Your task to perform on an android device: empty trash in the gmail app Image 0: 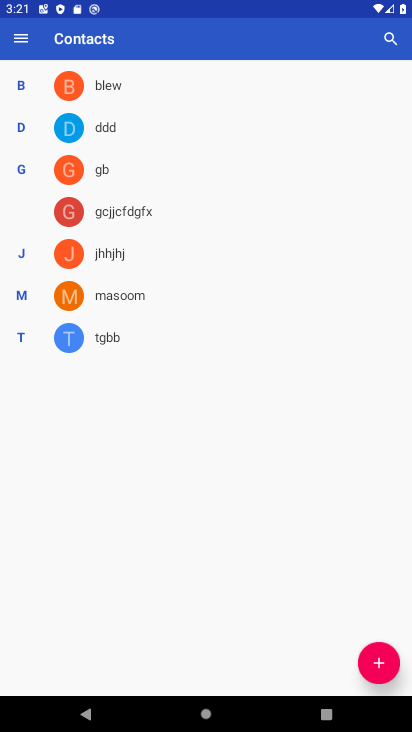
Step 0: press home button
Your task to perform on an android device: empty trash in the gmail app Image 1: 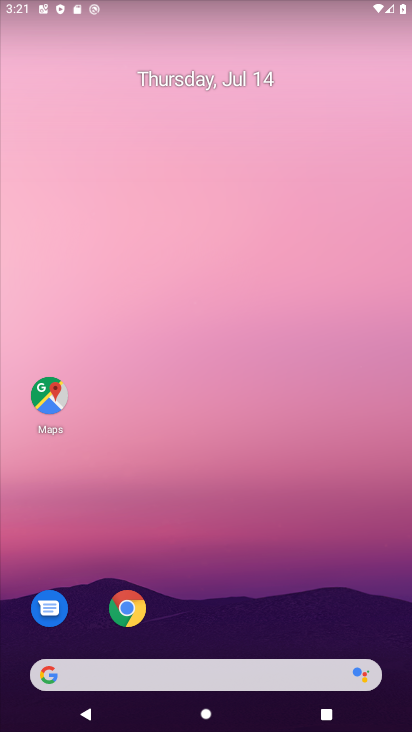
Step 1: drag from (37, 542) to (248, 69)
Your task to perform on an android device: empty trash in the gmail app Image 2: 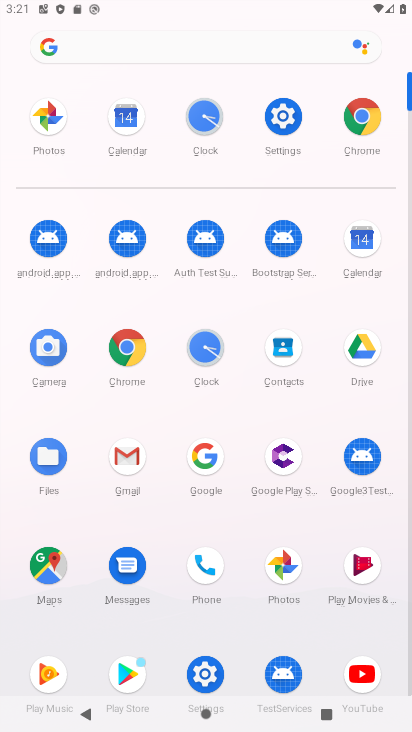
Step 2: click (126, 465)
Your task to perform on an android device: empty trash in the gmail app Image 3: 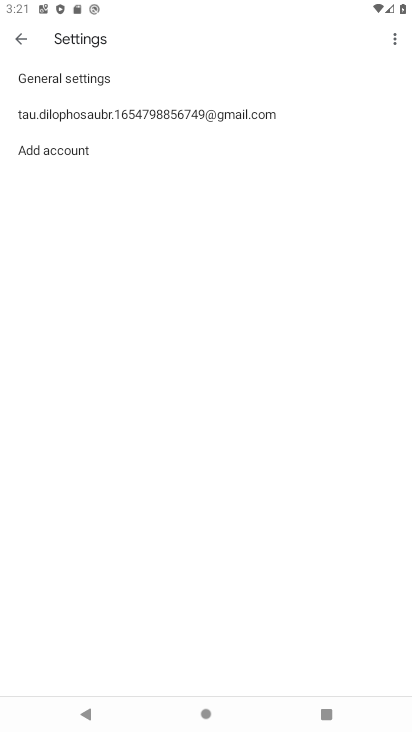
Step 3: click (13, 35)
Your task to perform on an android device: empty trash in the gmail app Image 4: 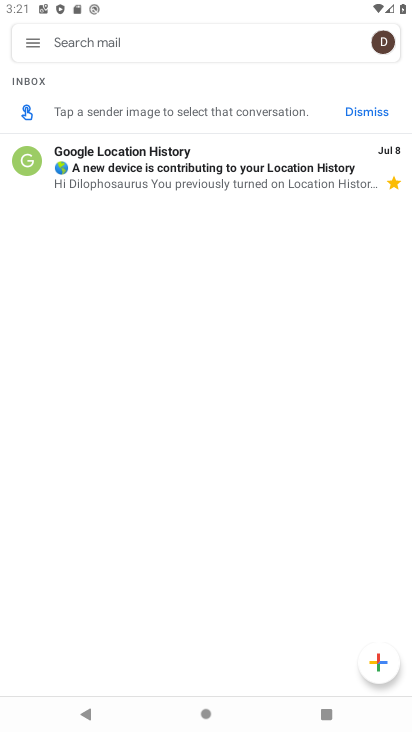
Step 4: click (28, 51)
Your task to perform on an android device: empty trash in the gmail app Image 5: 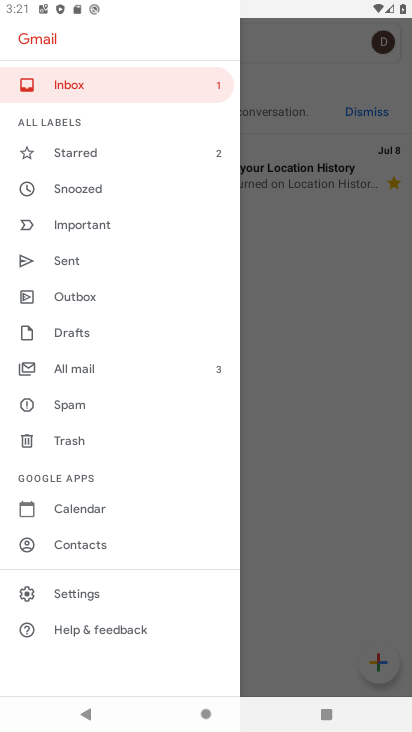
Step 5: click (91, 445)
Your task to perform on an android device: empty trash in the gmail app Image 6: 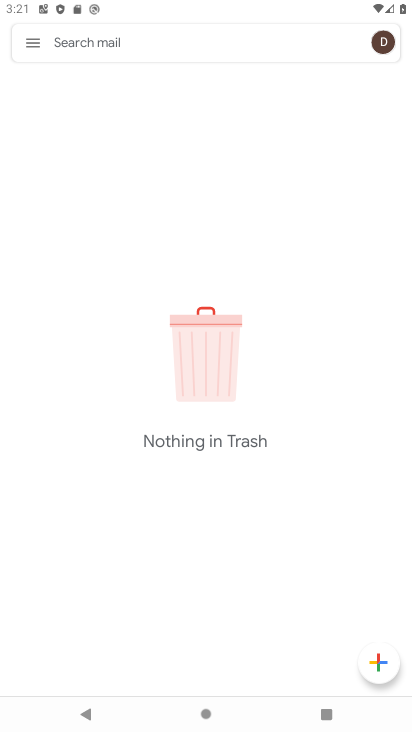
Step 6: task complete